Your task to perform on an android device: Open settings Image 0: 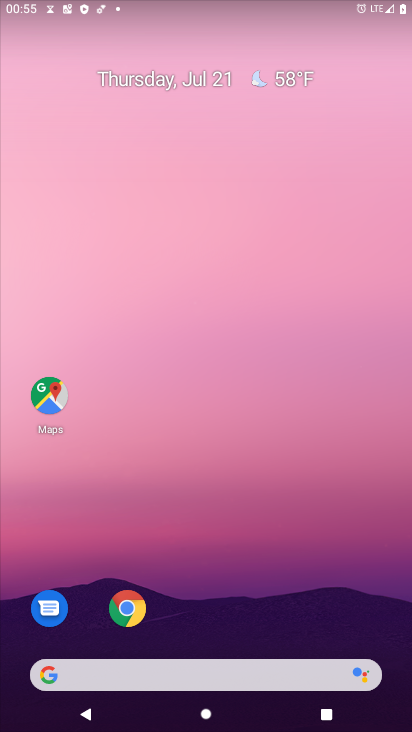
Step 0: press home button
Your task to perform on an android device: Open settings Image 1: 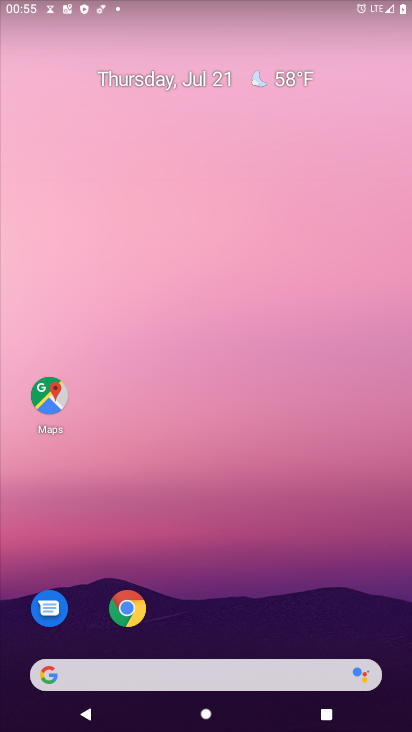
Step 1: drag from (208, 640) to (221, 33)
Your task to perform on an android device: Open settings Image 2: 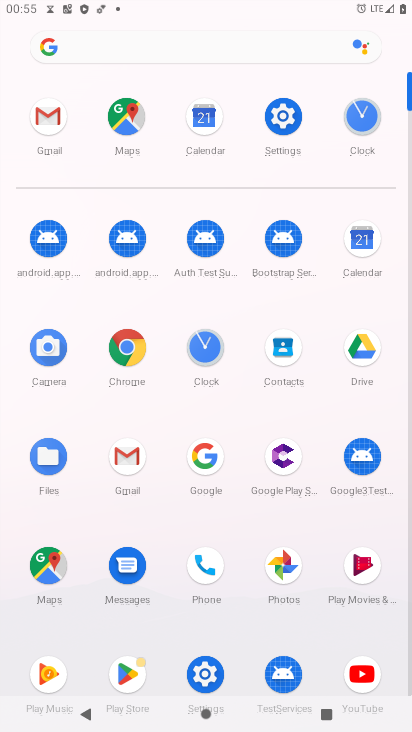
Step 2: click (283, 110)
Your task to perform on an android device: Open settings Image 3: 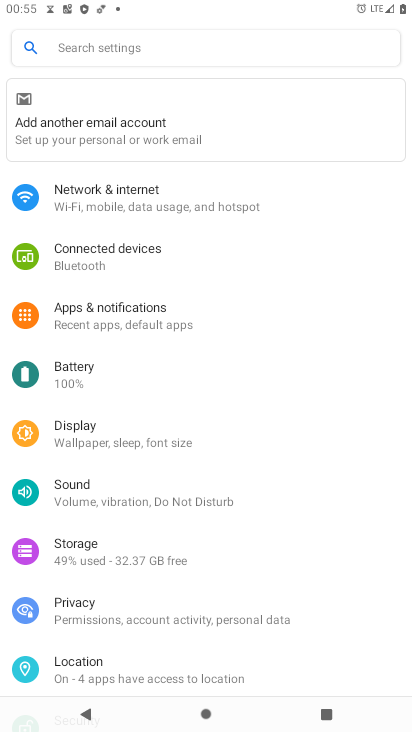
Step 3: task complete